Your task to perform on an android device: turn off smart reply in the gmail app Image 0: 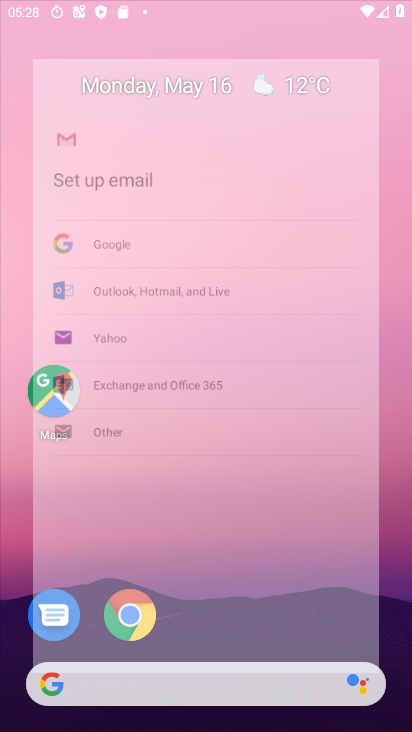
Step 0: drag from (302, 681) to (198, 189)
Your task to perform on an android device: turn off smart reply in the gmail app Image 1: 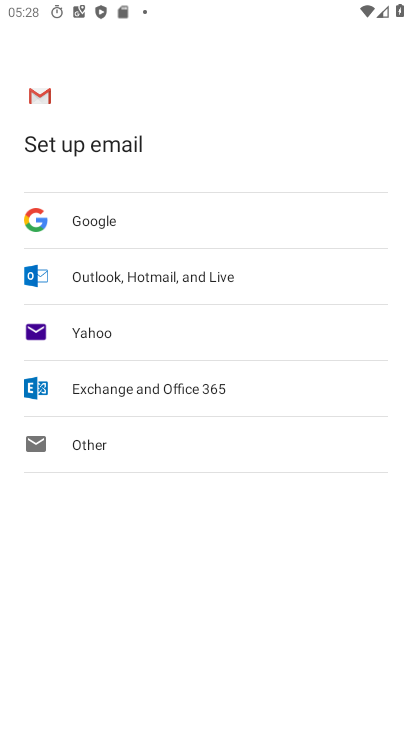
Step 1: press back button
Your task to perform on an android device: turn off smart reply in the gmail app Image 2: 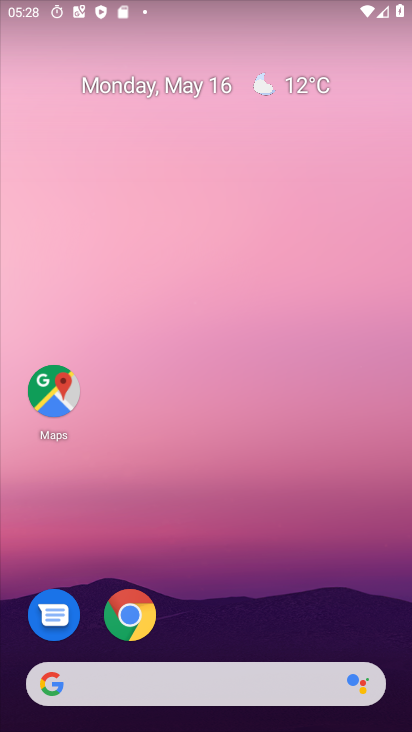
Step 2: drag from (186, 596) to (115, 47)
Your task to perform on an android device: turn off smart reply in the gmail app Image 3: 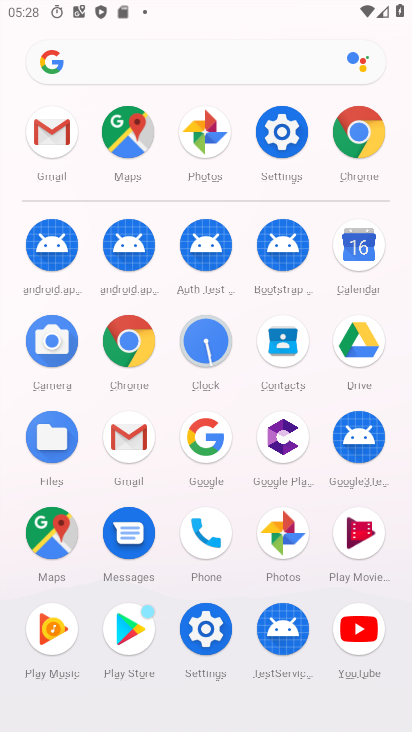
Step 3: click (123, 438)
Your task to perform on an android device: turn off smart reply in the gmail app Image 4: 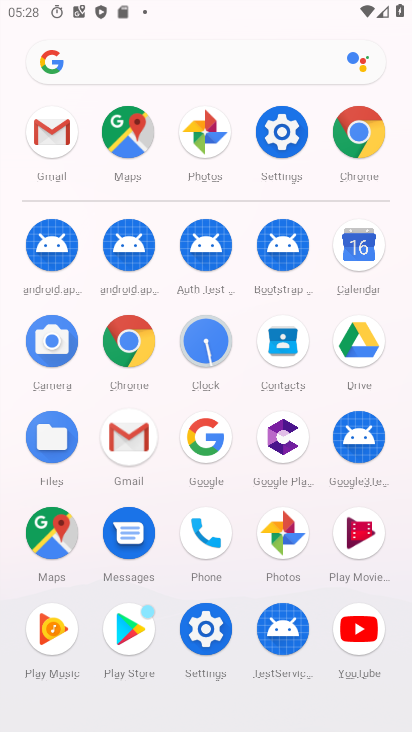
Step 4: click (123, 438)
Your task to perform on an android device: turn off smart reply in the gmail app Image 5: 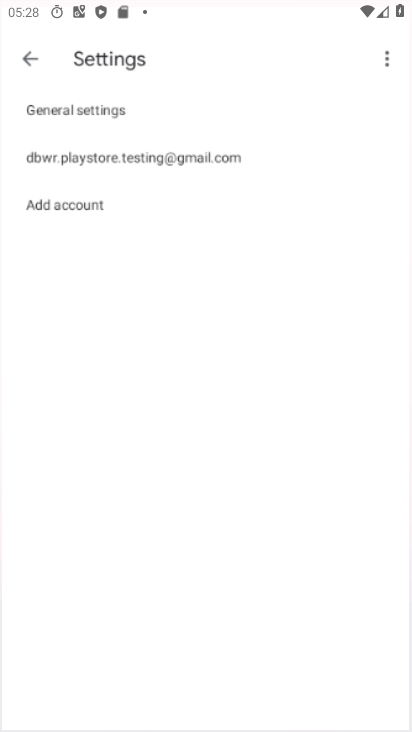
Step 5: click (123, 438)
Your task to perform on an android device: turn off smart reply in the gmail app Image 6: 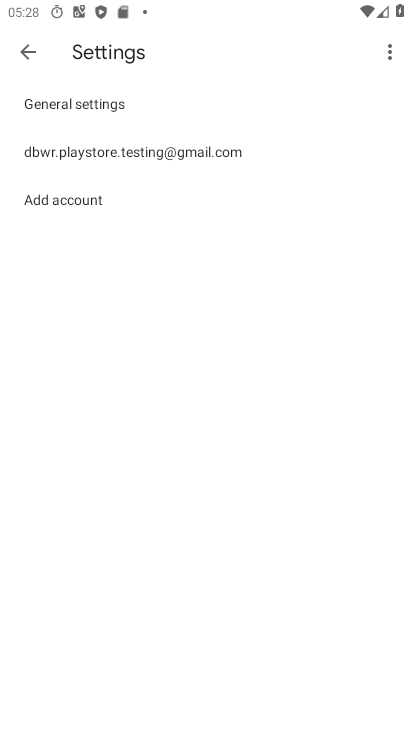
Step 6: click (127, 151)
Your task to perform on an android device: turn off smart reply in the gmail app Image 7: 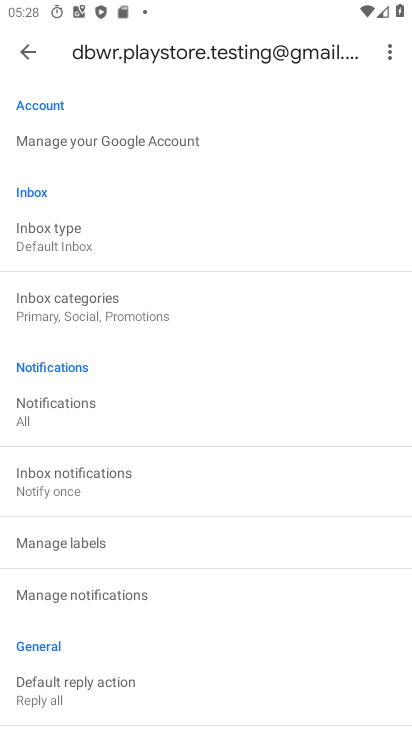
Step 7: drag from (136, 531) to (72, 100)
Your task to perform on an android device: turn off smart reply in the gmail app Image 8: 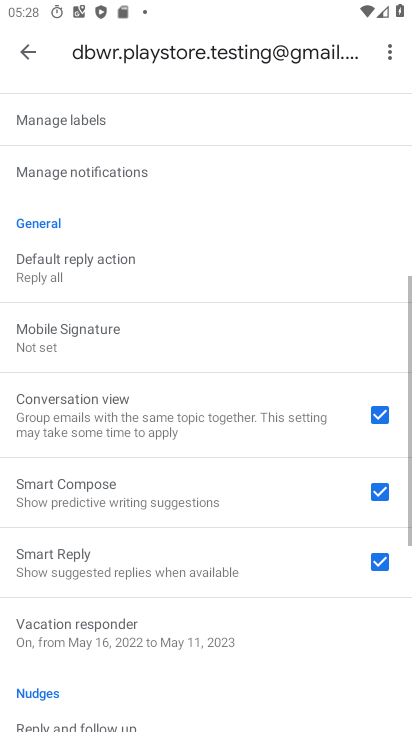
Step 8: drag from (87, 486) to (42, 233)
Your task to perform on an android device: turn off smart reply in the gmail app Image 9: 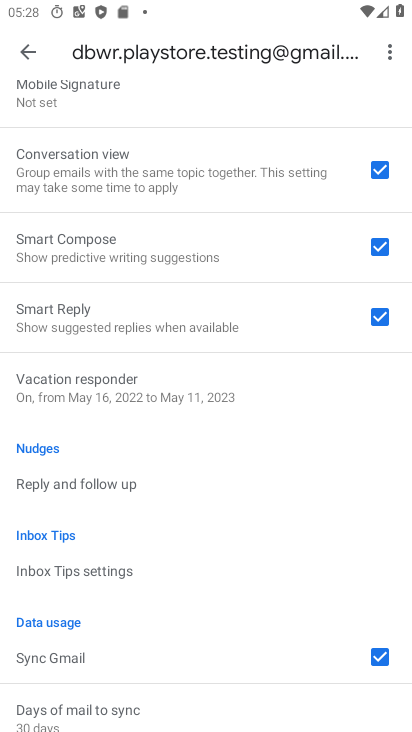
Step 9: click (366, 316)
Your task to perform on an android device: turn off smart reply in the gmail app Image 10: 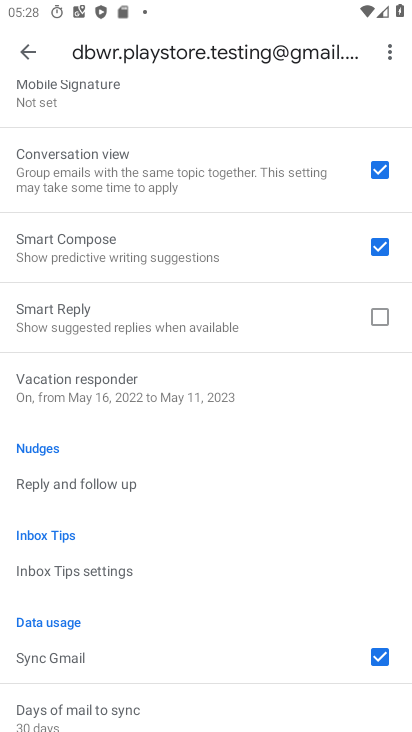
Step 10: task complete